Your task to perform on an android device: Add logitech g pro to the cart on costco Image 0: 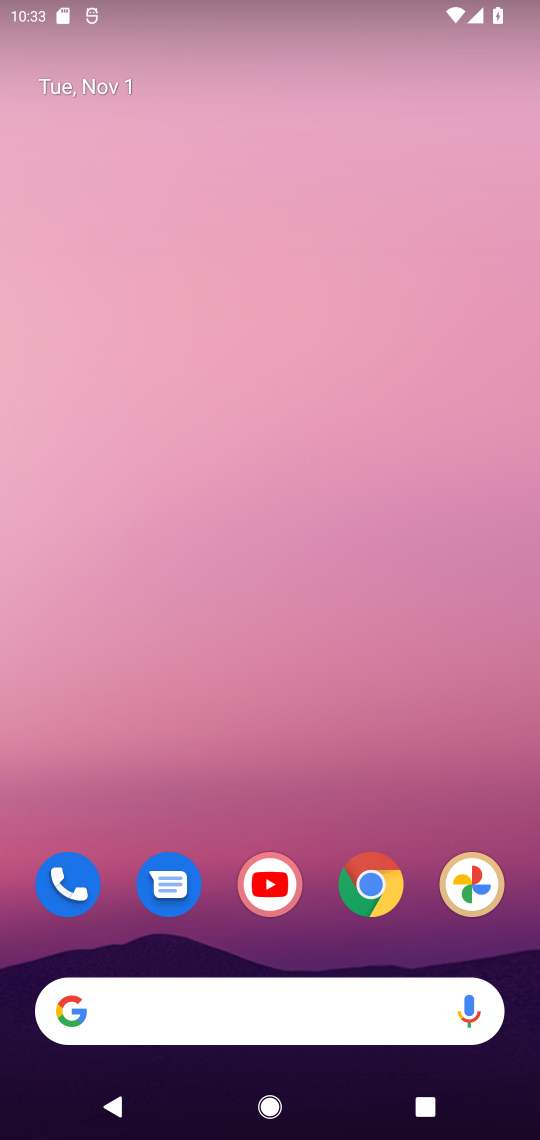
Step 0: click (375, 898)
Your task to perform on an android device: Add logitech g pro to the cart on costco Image 1: 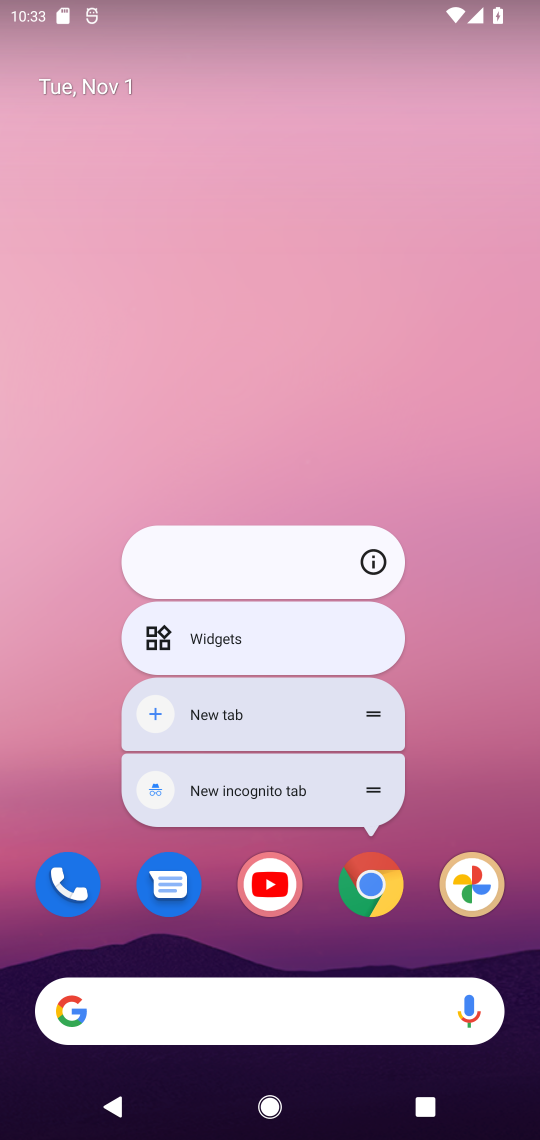
Step 1: click (375, 896)
Your task to perform on an android device: Add logitech g pro to the cart on costco Image 2: 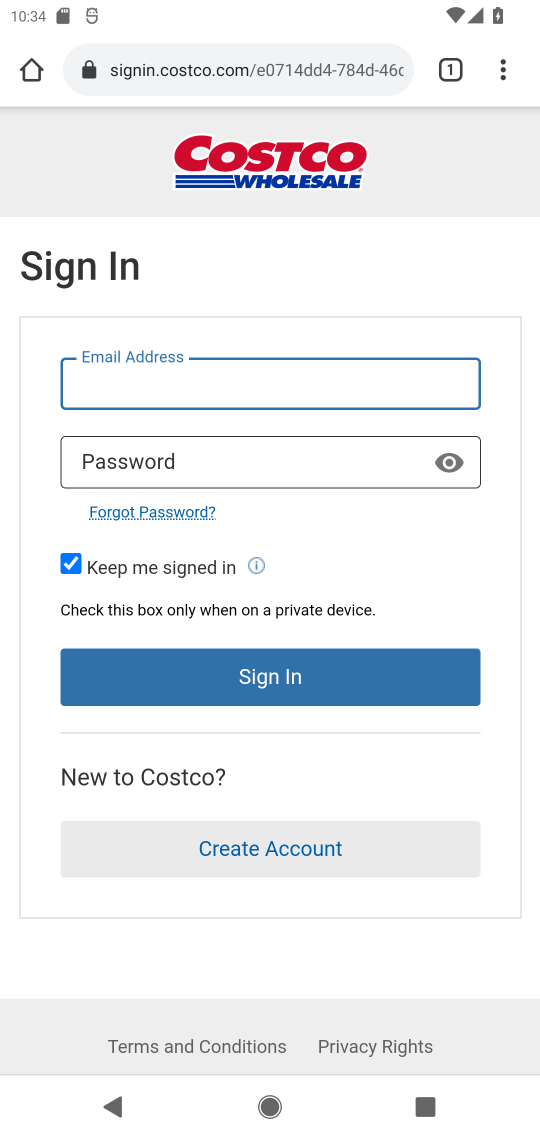
Step 2: press back button
Your task to perform on an android device: Add logitech g pro to the cart on costco Image 3: 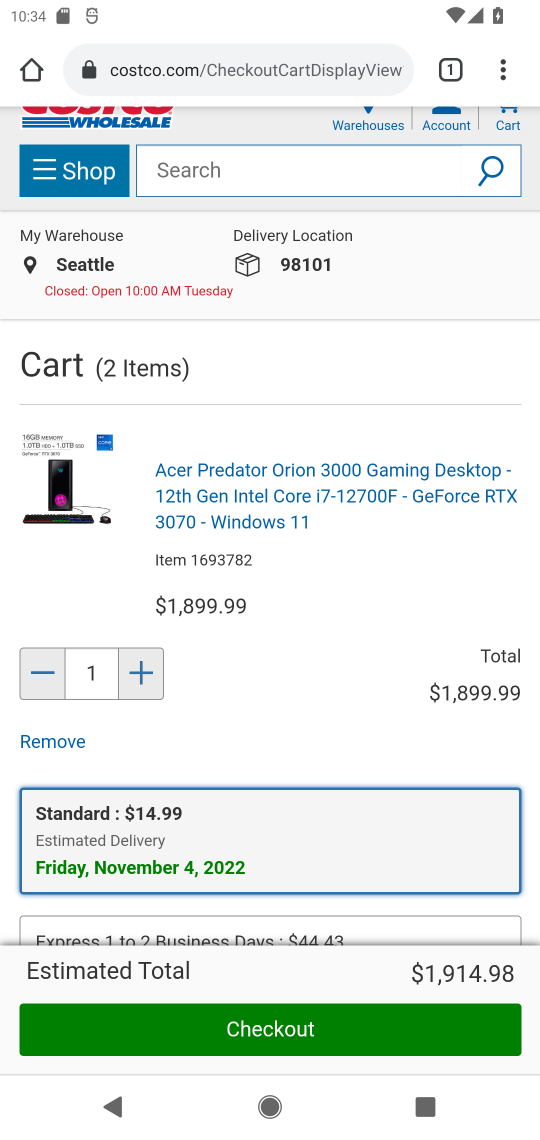
Step 3: click (195, 166)
Your task to perform on an android device: Add logitech g pro to the cart on costco Image 4: 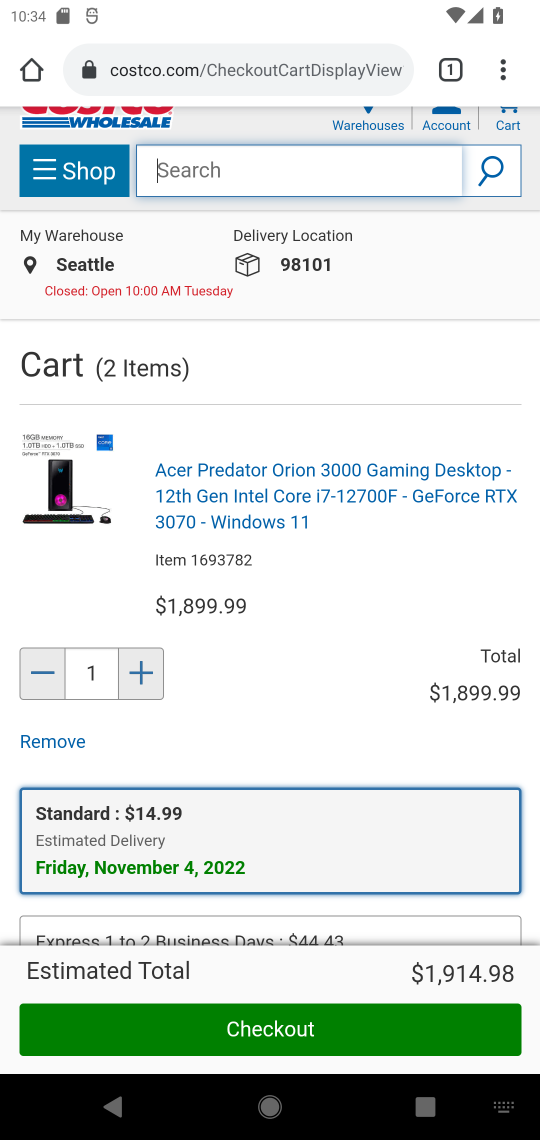
Step 4: type "logitech g pro "
Your task to perform on an android device: Add logitech g pro to the cart on costco Image 5: 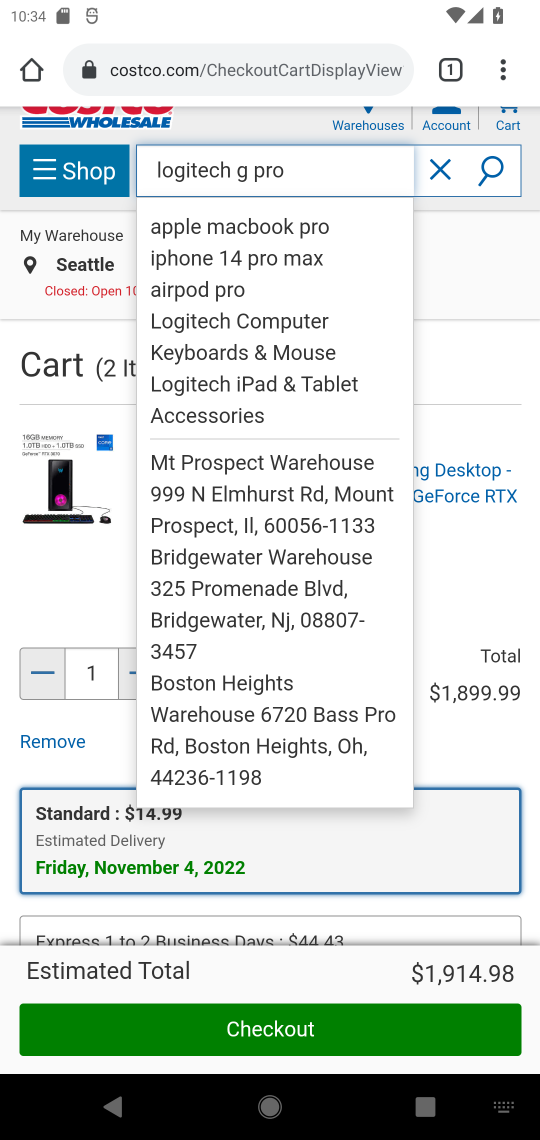
Step 5: click (487, 166)
Your task to perform on an android device: Add logitech g pro to the cart on costco Image 6: 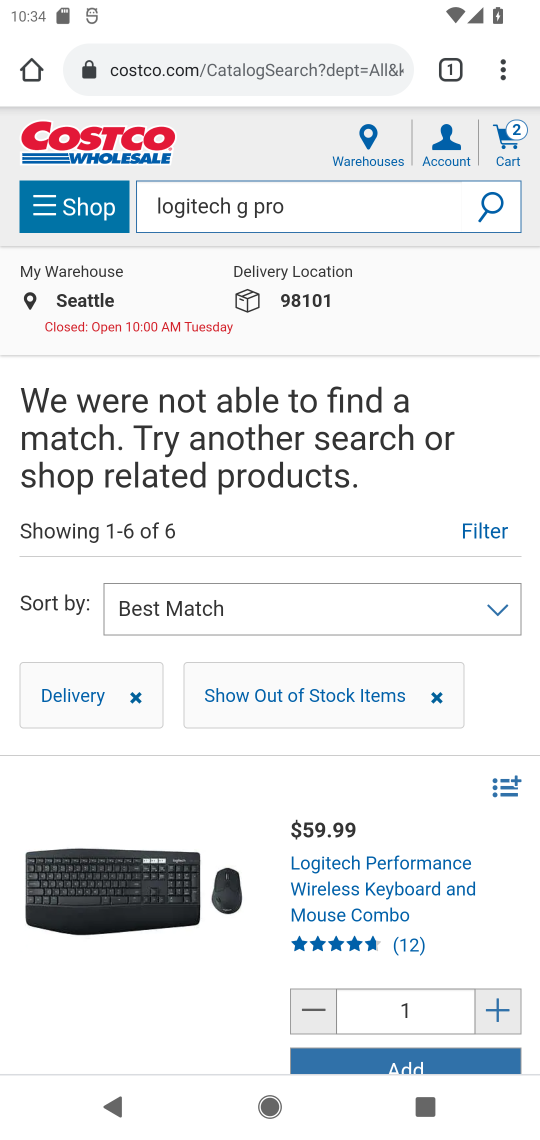
Step 6: task complete